Your task to perform on an android device: turn on notifications settings in the gmail app Image 0: 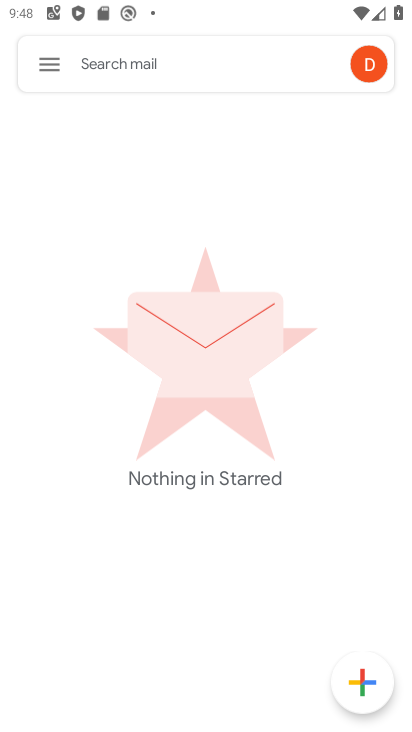
Step 0: click (57, 71)
Your task to perform on an android device: turn on notifications settings in the gmail app Image 1: 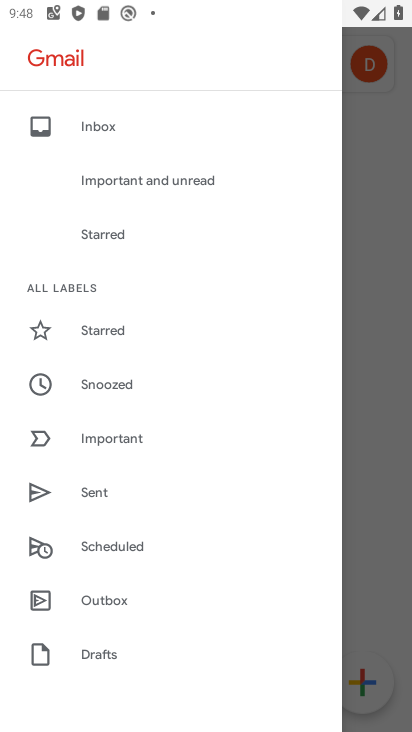
Step 1: drag from (153, 627) to (166, 198)
Your task to perform on an android device: turn on notifications settings in the gmail app Image 2: 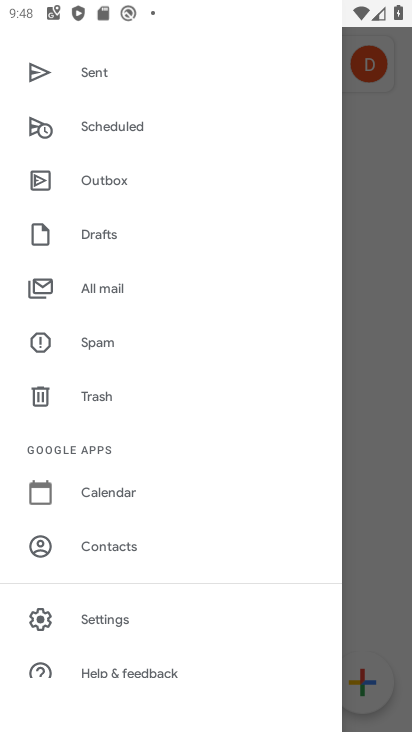
Step 2: click (117, 610)
Your task to perform on an android device: turn on notifications settings in the gmail app Image 3: 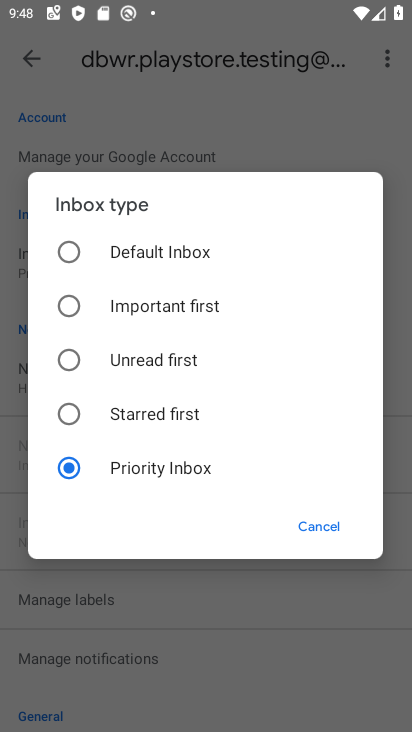
Step 3: click (322, 524)
Your task to perform on an android device: turn on notifications settings in the gmail app Image 4: 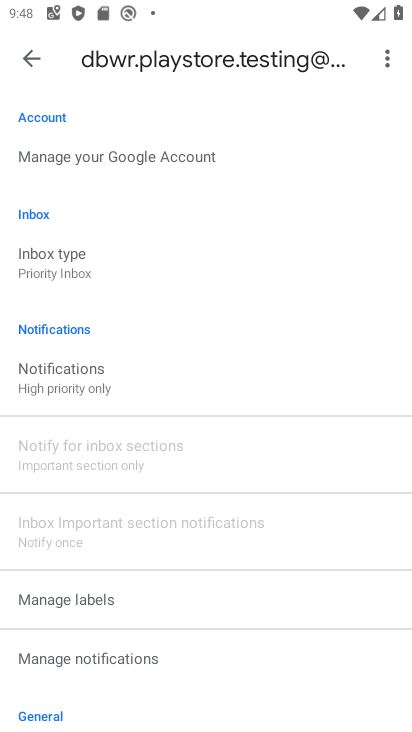
Step 4: click (154, 381)
Your task to perform on an android device: turn on notifications settings in the gmail app Image 5: 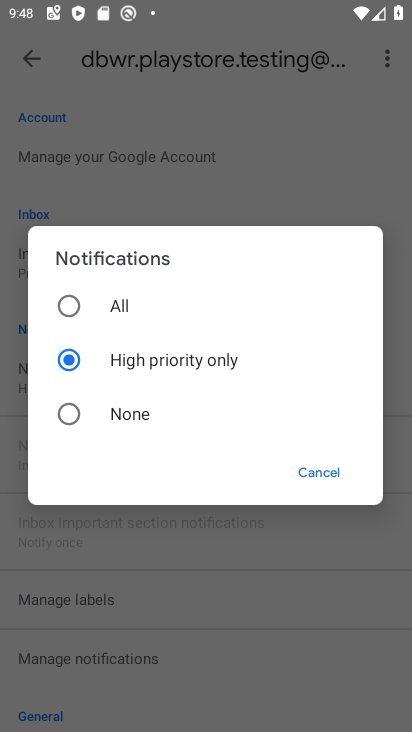
Step 5: click (92, 311)
Your task to perform on an android device: turn on notifications settings in the gmail app Image 6: 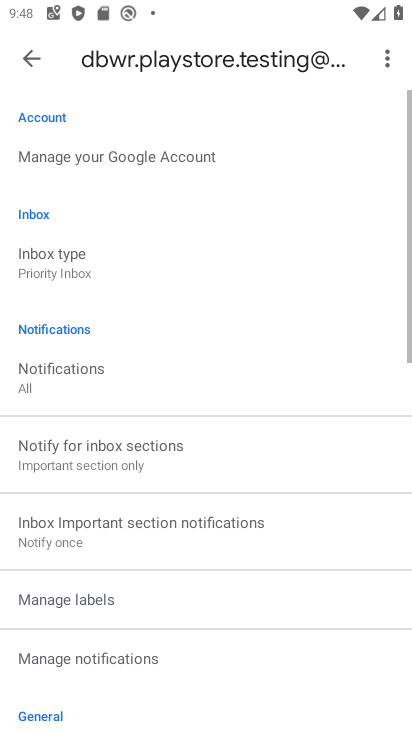
Step 6: task complete